Your task to perform on an android device: Do I have any events today? Image 0: 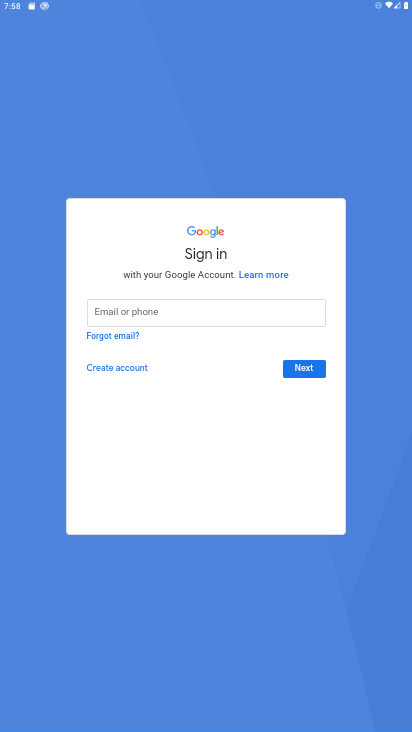
Step 0: task impossible